Your task to perform on an android device: Add jbl flip 4 to the cart on walmart Image 0: 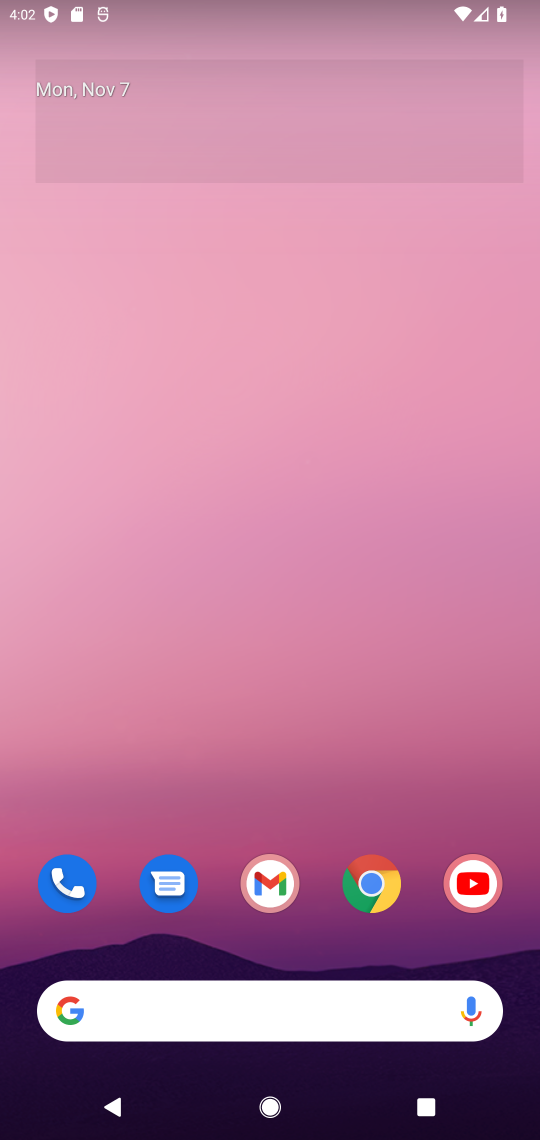
Step 0: click (362, 882)
Your task to perform on an android device: Add jbl flip 4 to the cart on walmart Image 1: 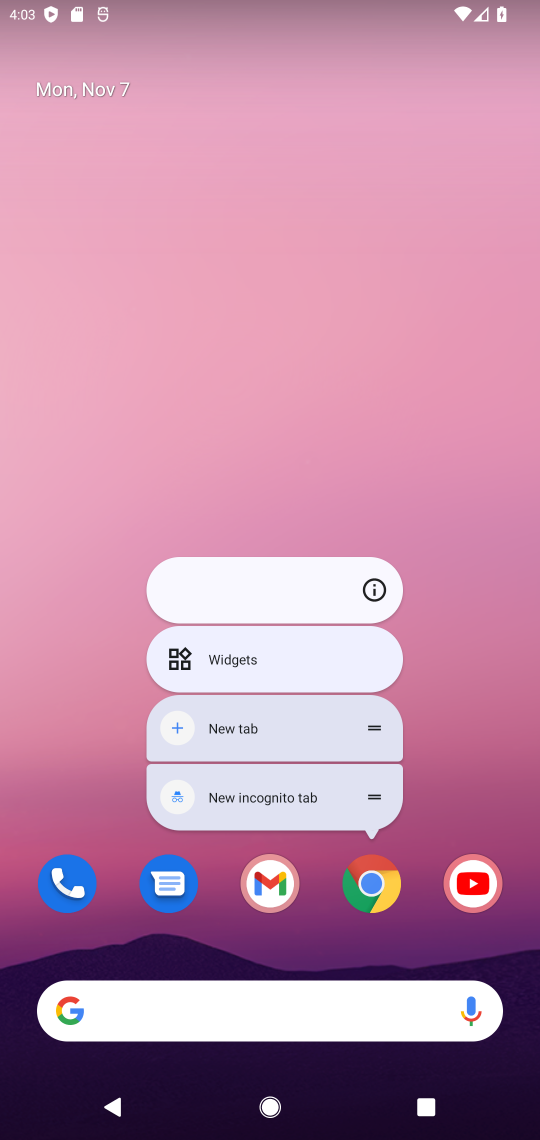
Step 1: click (368, 884)
Your task to perform on an android device: Add jbl flip 4 to the cart on walmart Image 2: 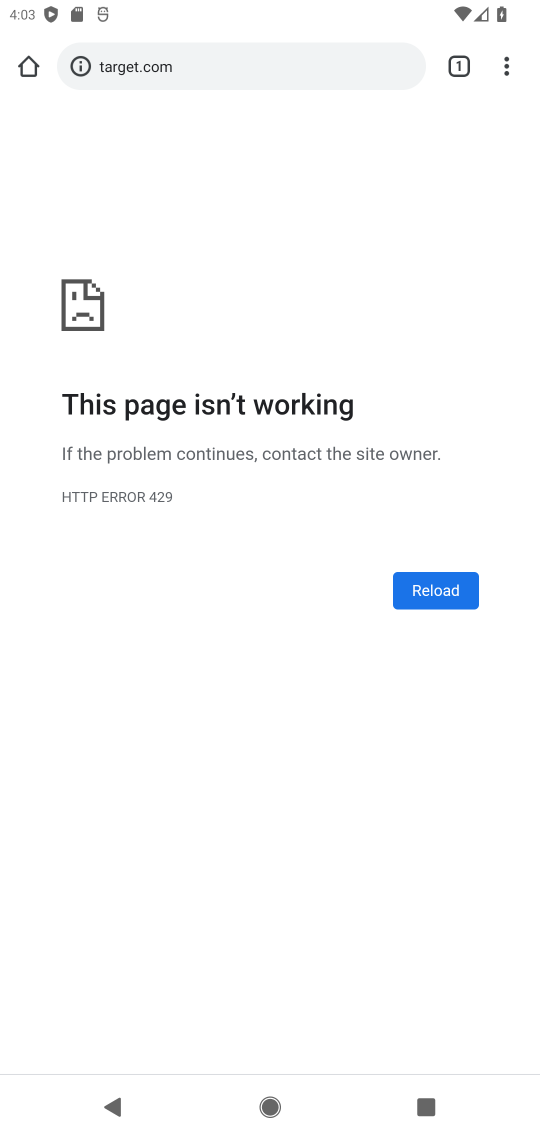
Step 2: click (274, 51)
Your task to perform on an android device: Add jbl flip 4 to the cart on walmart Image 3: 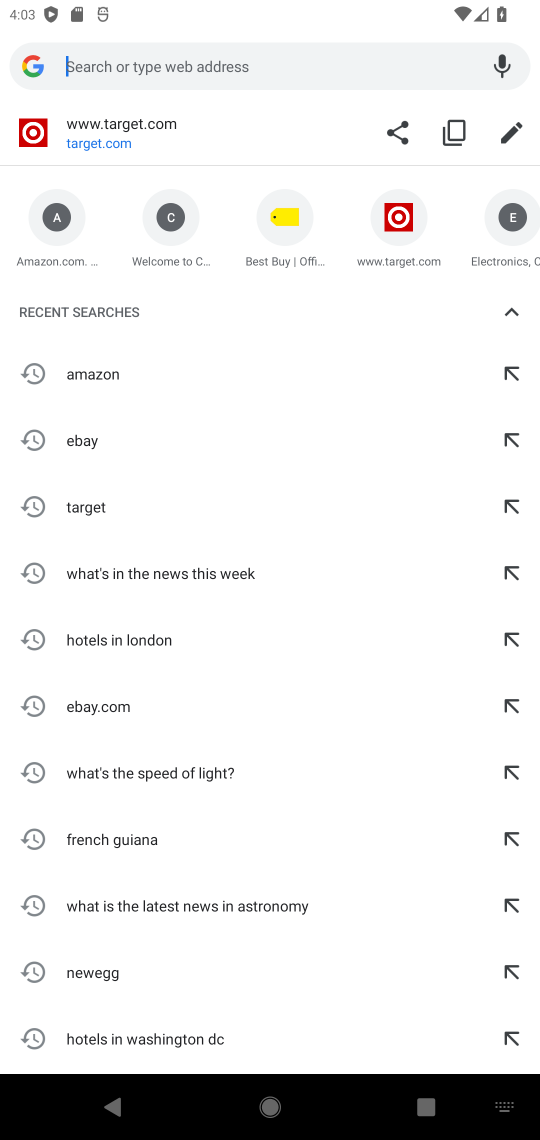
Step 3: type "walmart"
Your task to perform on an android device: Add jbl flip 4 to the cart on walmart Image 4: 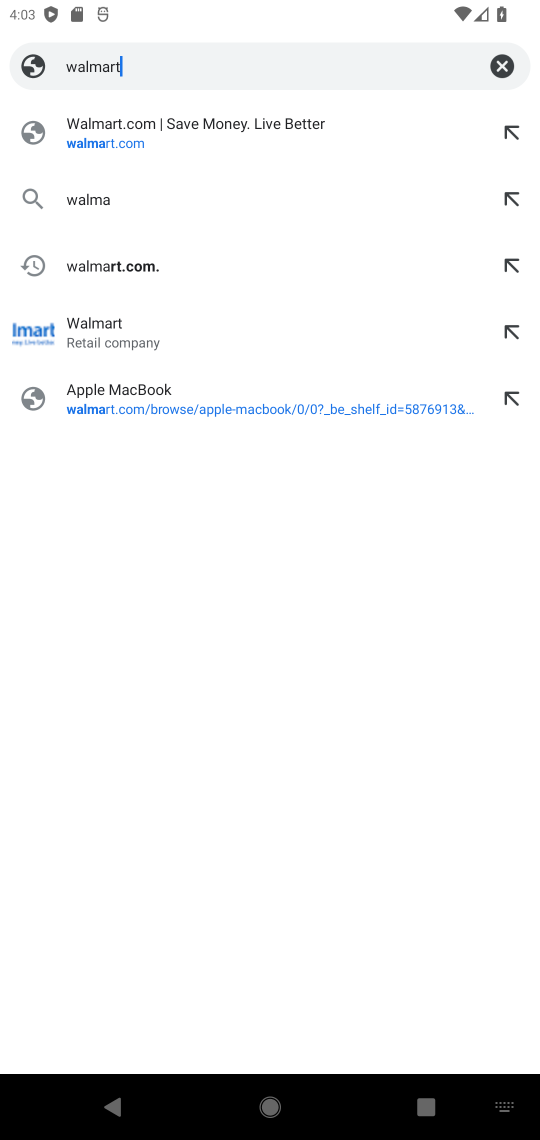
Step 4: press enter
Your task to perform on an android device: Add jbl flip 4 to the cart on walmart Image 5: 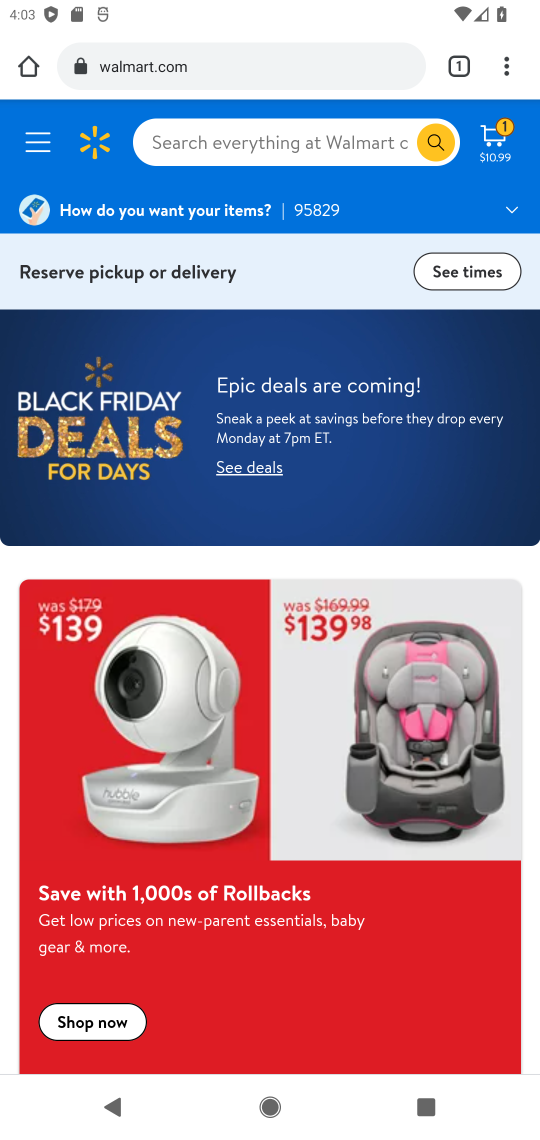
Step 5: click (308, 135)
Your task to perform on an android device: Add jbl flip 4 to the cart on walmart Image 6: 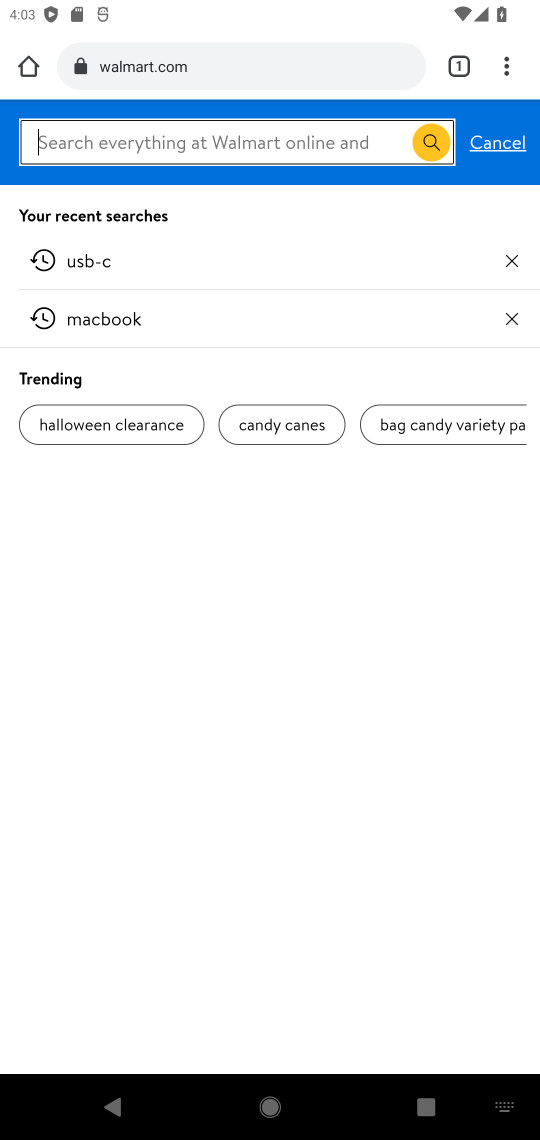
Step 6: type "jbl flip 4 "
Your task to perform on an android device: Add jbl flip 4 to the cart on walmart Image 7: 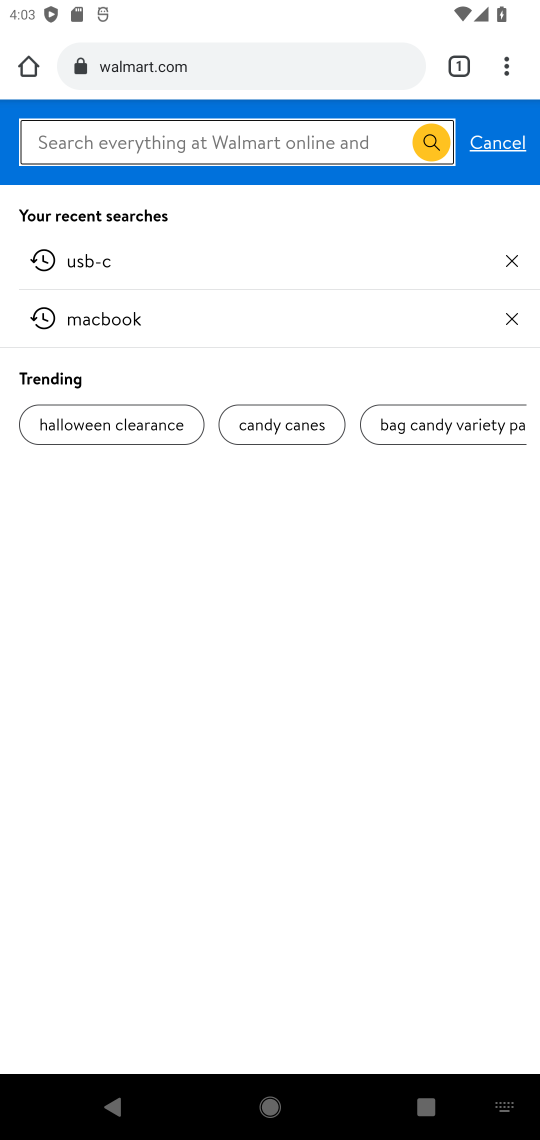
Step 7: press enter
Your task to perform on an android device: Add jbl flip 4 to the cart on walmart Image 8: 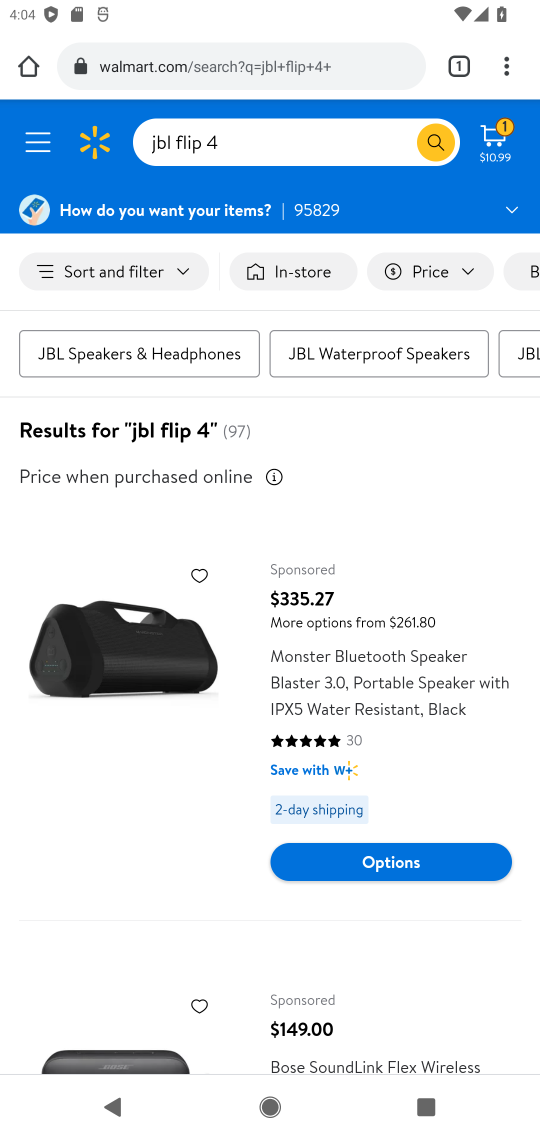
Step 8: drag from (159, 974) to (363, 588)
Your task to perform on an android device: Add jbl flip 4 to the cart on walmart Image 9: 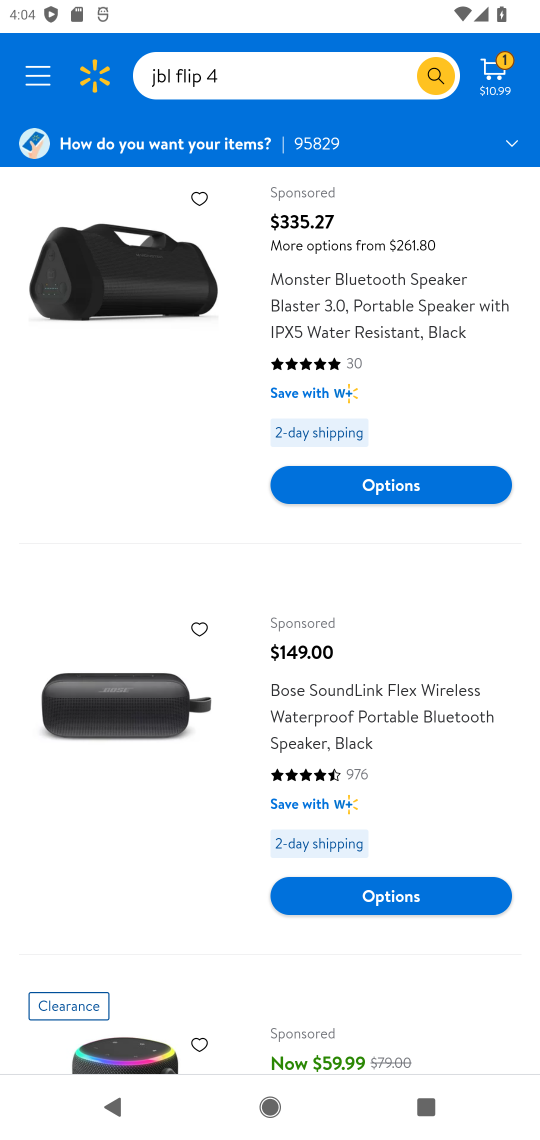
Step 9: drag from (405, 306) to (468, 705)
Your task to perform on an android device: Add jbl flip 4 to the cart on walmart Image 10: 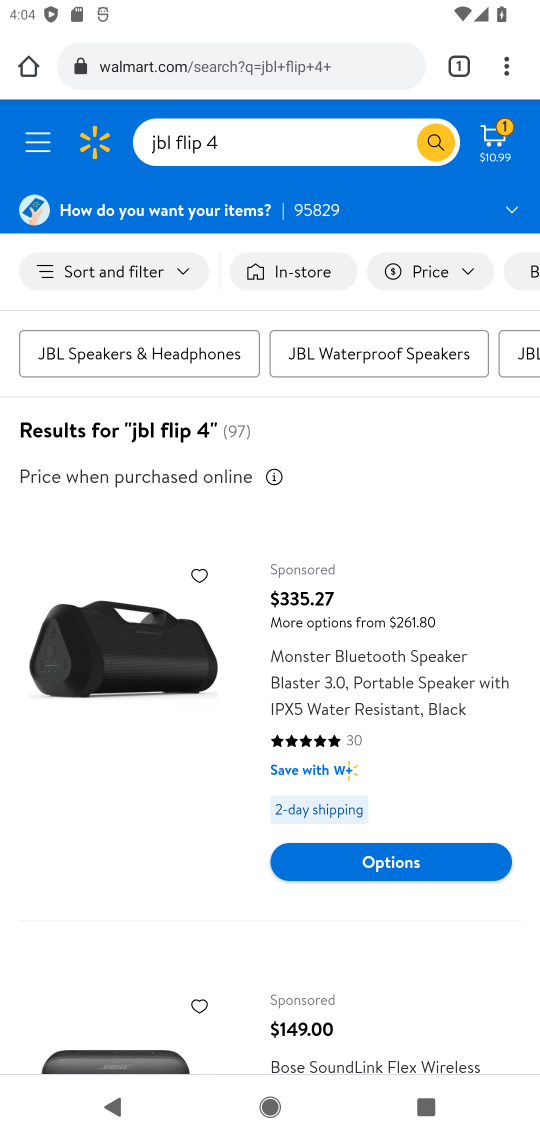
Step 10: click (322, 673)
Your task to perform on an android device: Add jbl flip 4 to the cart on walmart Image 11: 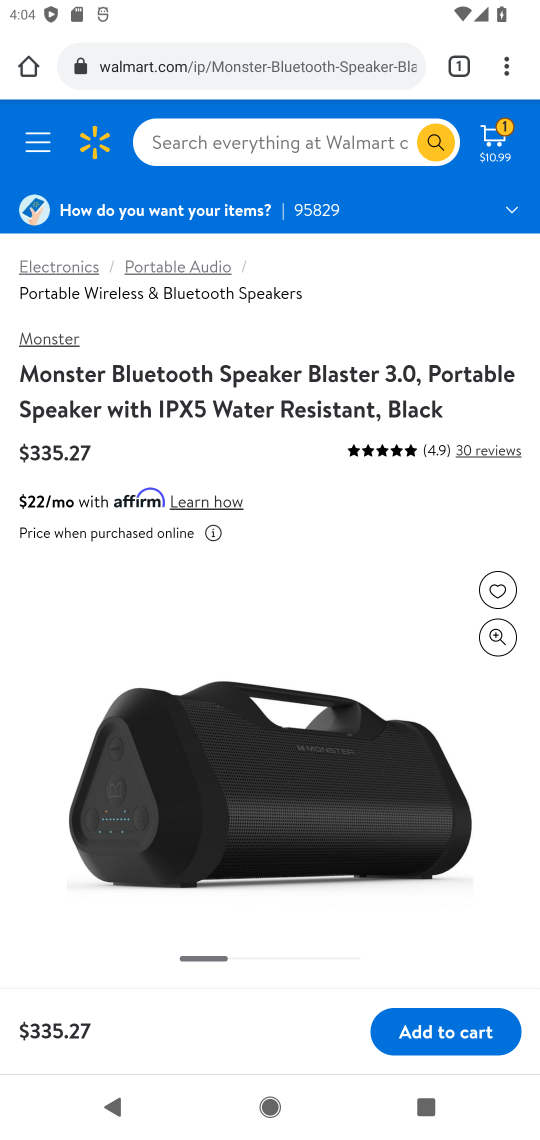
Step 11: task complete